Your task to perform on an android device: create a new album in the google photos Image 0: 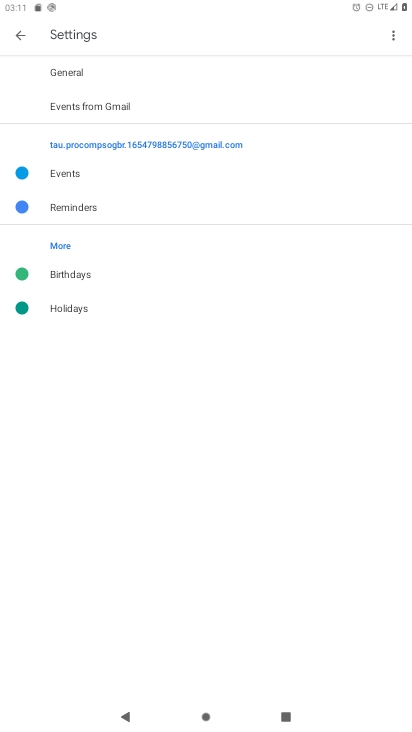
Step 0: press home button
Your task to perform on an android device: create a new album in the google photos Image 1: 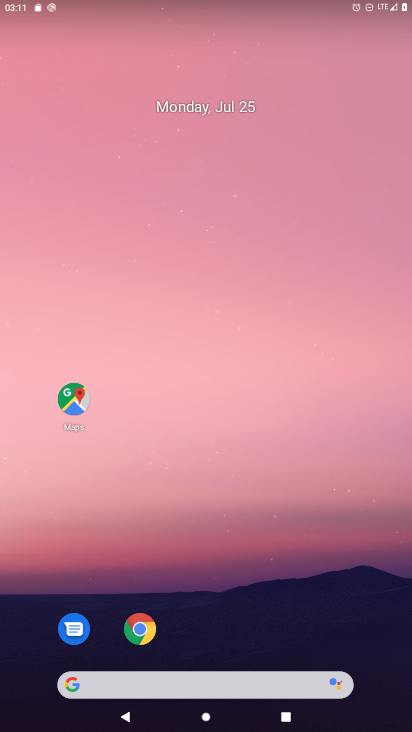
Step 1: drag from (300, 629) to (385, 51)
Your task to perform on an android device: create a new album in the google photos Image 2: 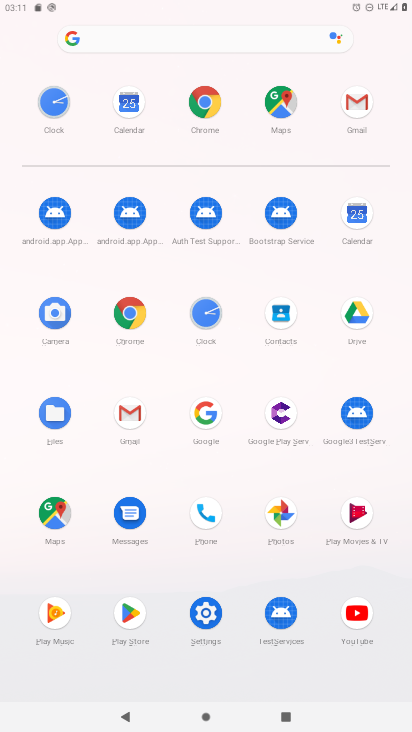
Step 2: click (272, 505)
Your task to perform on an android device: create a new album in the google photos Image 3: 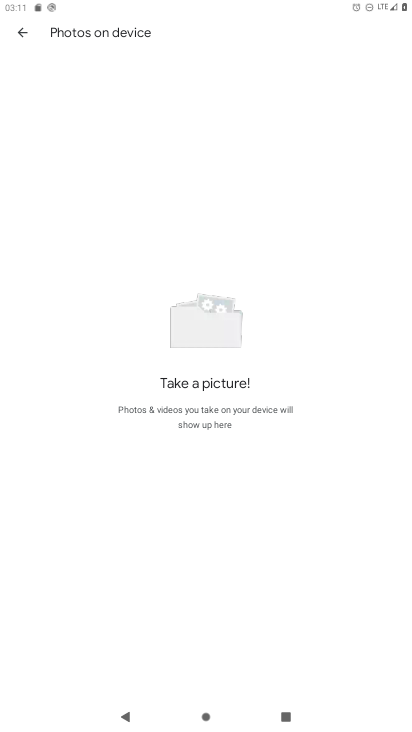
Step 3: click (17, 32)
Your task to perform on an android device: create a new album in the google photos Image 4: 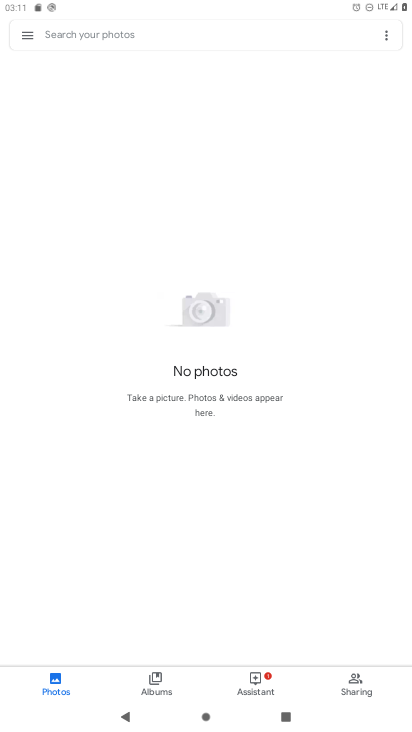
Step 4: task complete